Your task to perform on an android device: allow cookies in the chrome app Image 0: 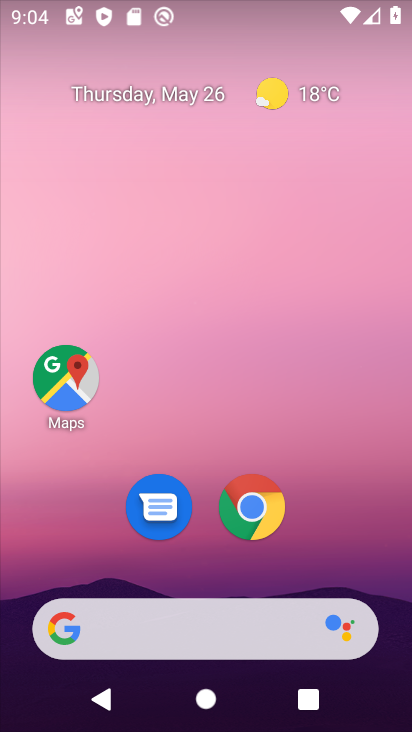
Step 0: press home button
Your task to perform on an android device: allow cookies in the chrome app Image 1: 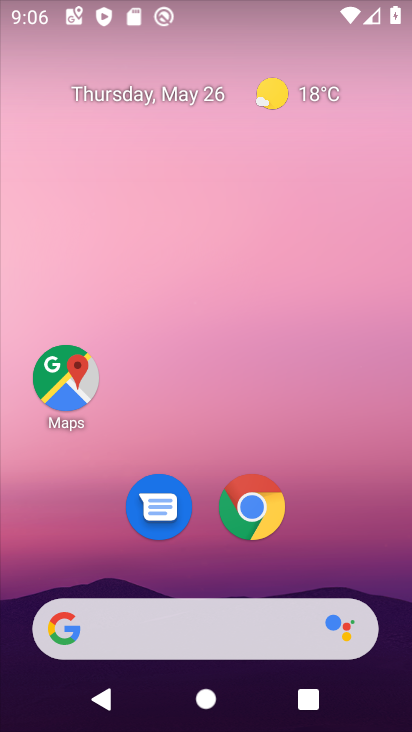
Step 1: drag from (275, 673) to (206, 264)
Your task to perform on an android device: allow cookies in the chrome app Image 2: 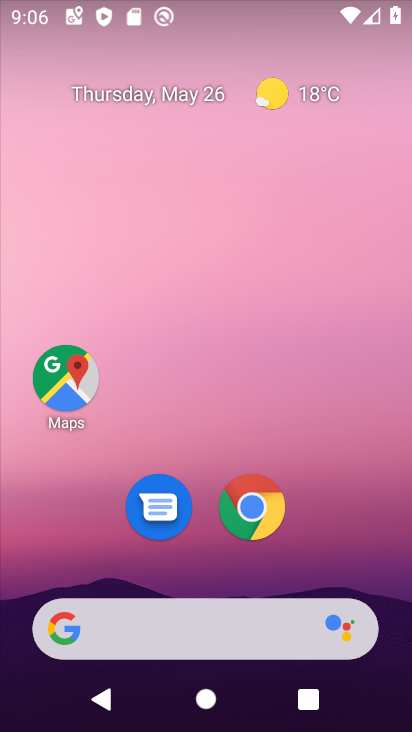
Step 2: drag from (274, 655) to (225, 2)
Your task to perform on an android device: allow cookies in the chrome app Image 3: 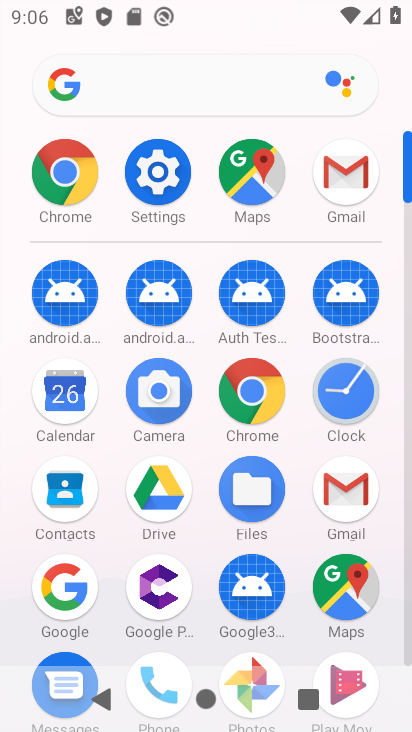
Step 3: click (272, 426)
Your task to perform on an android device: allow cookies in the chrome app Image 4: 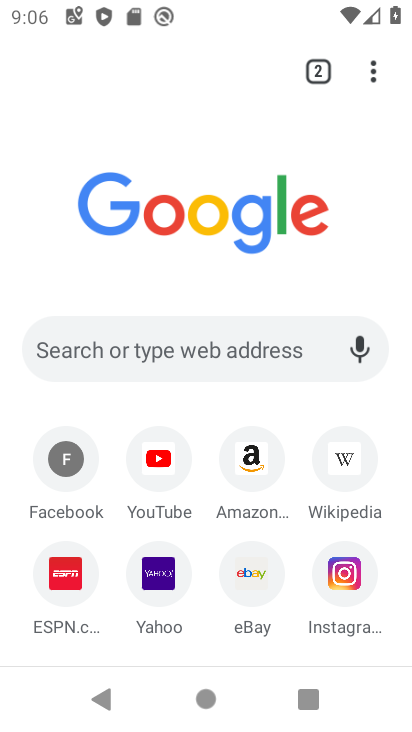
Step 4: click (364, 81)
Your task to perform on an android device: allow cookies in the chrome app Image 5: 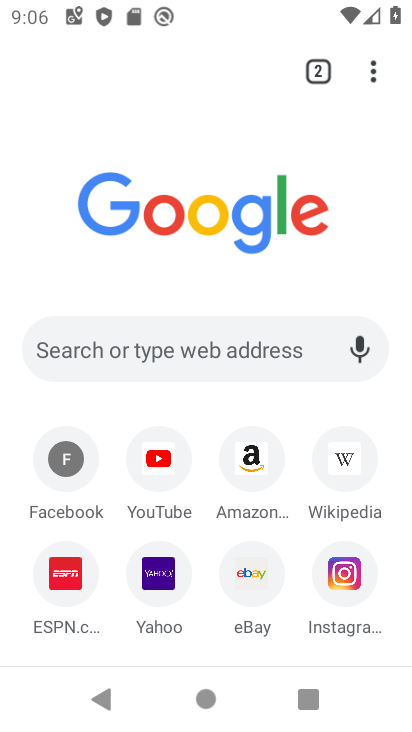
Step 5: click (367, 73)
Your task to perform on an android device: allow cookies in the chrome app Image 6: 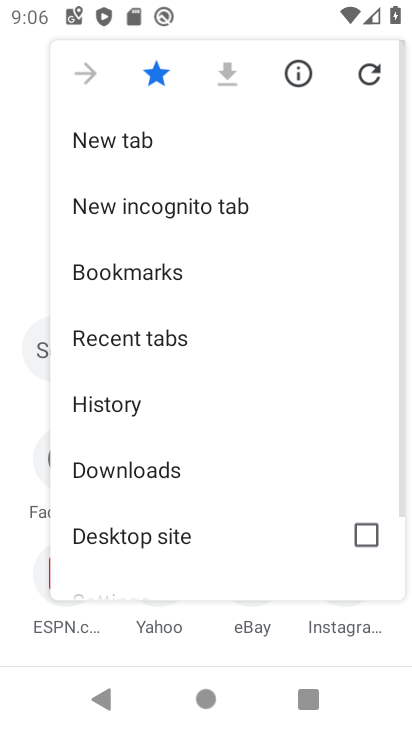
Step 6: drag from (145, 505) to (174, 272)
Your task to perform on an android device: allow cookies in the chrome app Image 7: 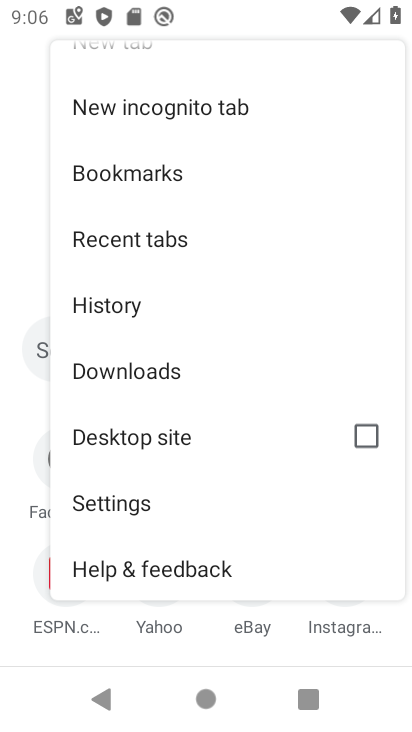
Step 7: click (146, 507)
Your task to perform on an android device: allow cookies in the chrome app Image 8: 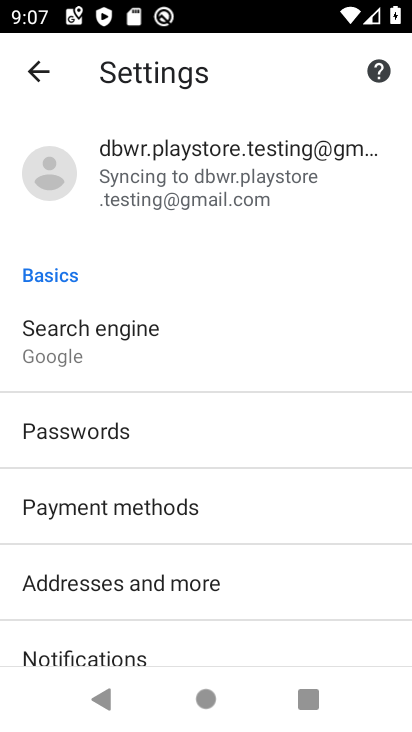
Step 8: drag from (146, 613) to (221, 316)
Your task to perform on an android device: allow cookies in the chrome app Image 9: 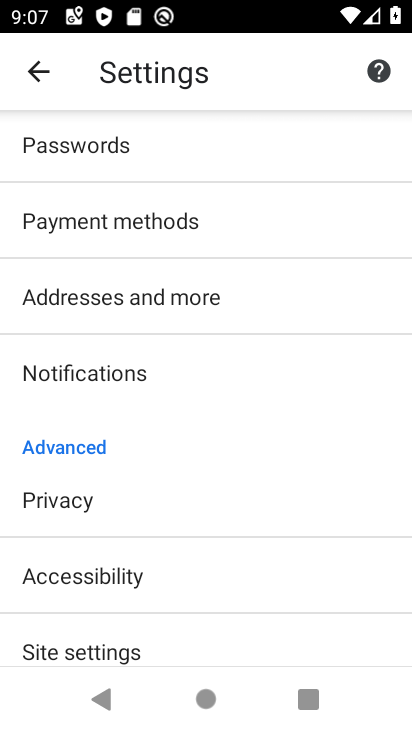
Step 9: drag from (138, 511) to (181, 373)
Your task to perform on an android device: allow cookies in the chrome app Image 10: 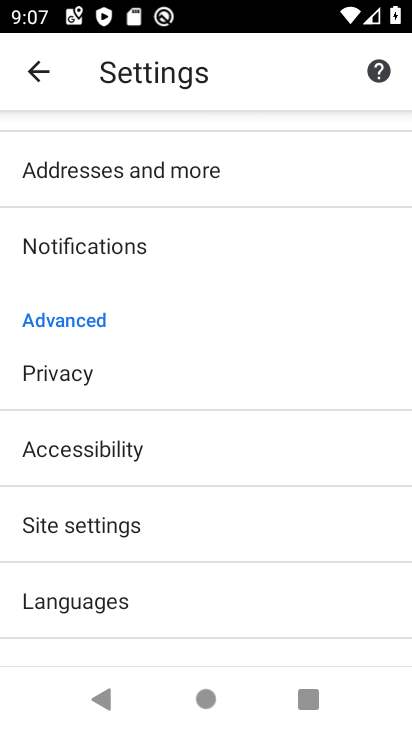
Step 10: click (151, 532)
Your task to perform on an android device: allow cookies in the chrome app Image 11: 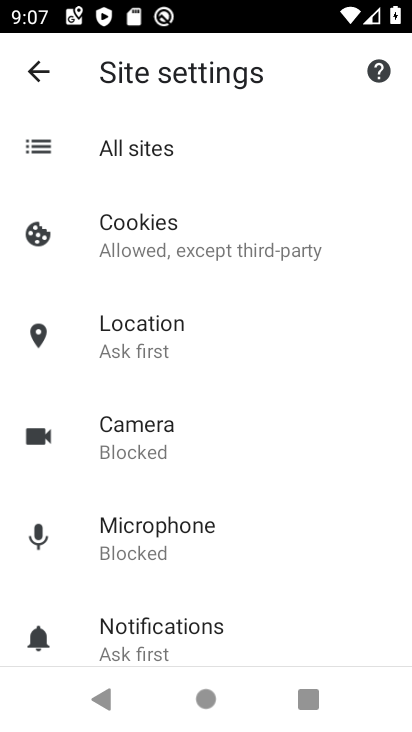
Step 11: drag from (180, 508) to (193, 239)
Your task to perform on an android device: allow cookies in the chrome app Image 12: 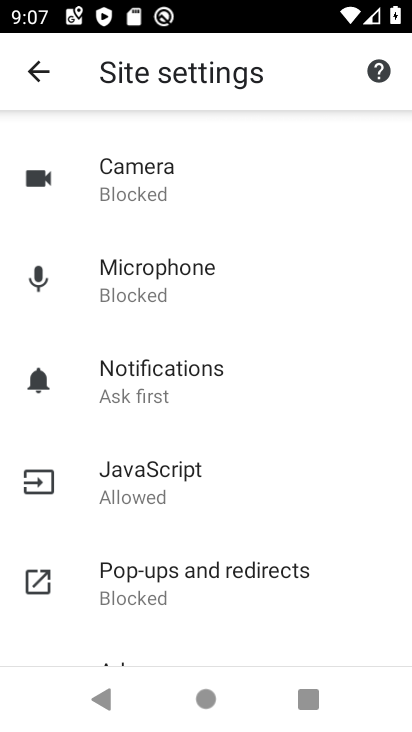
Step 12: click (178, 483)
Your task to perform on an android device: allow cookies in the chrome app Image 13: 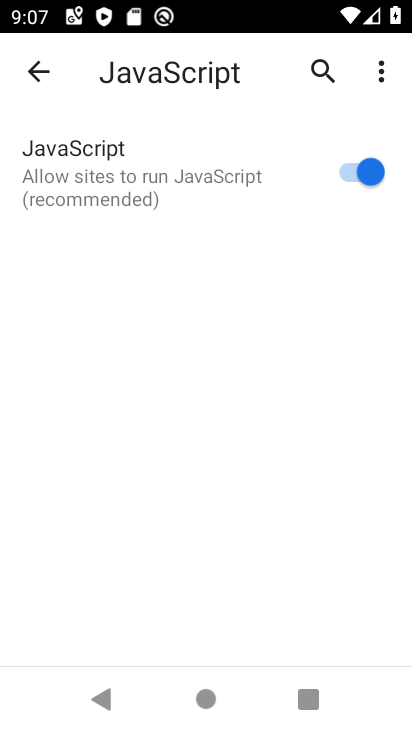
Step 13: click (363, 182)
Your task to perform on an android device: allow cookies in the chrome app Image 14: 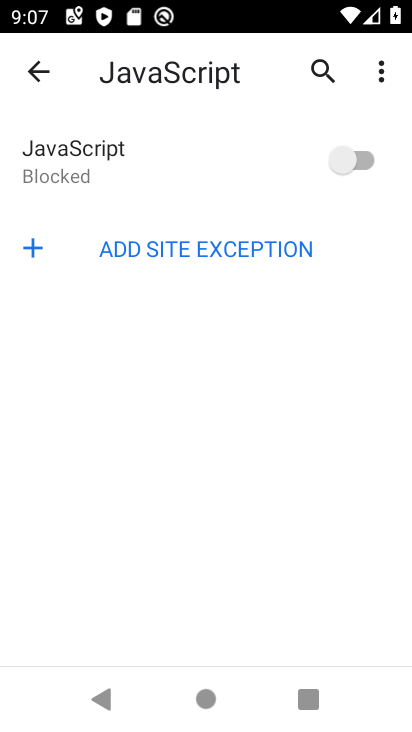
Step 14: click (360, 184)
Your task to perform on an android device: allow cookies in the chrome app Image 15: 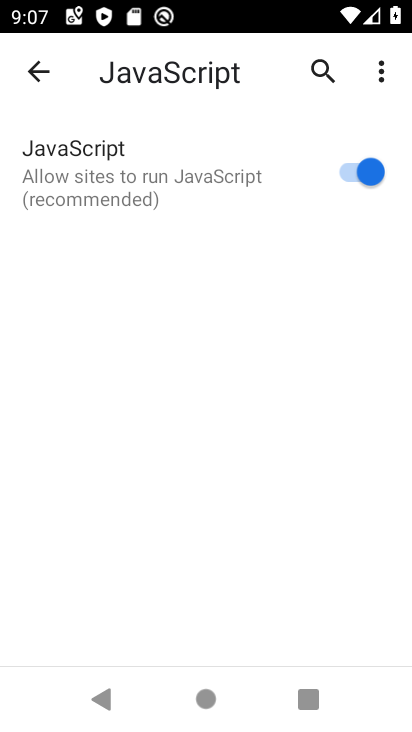
Step 15: task complete